Your task to perform on an android device: create a new album in the google photos Image 0: 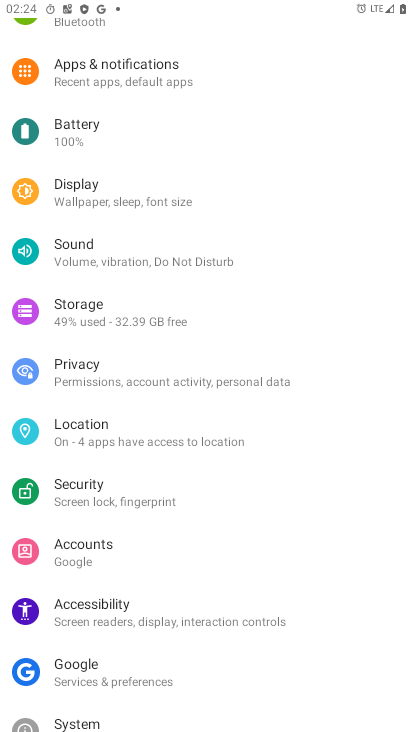
Step 0: press home button
Your task to perform on an android device: create a new album in the google photos Image 1: 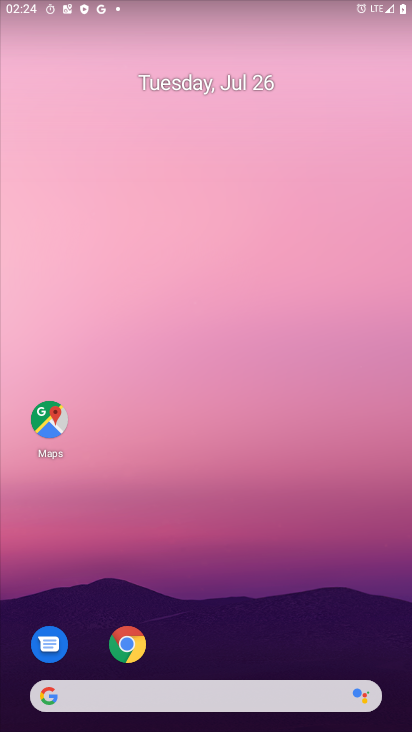
Step 1: drag from (235, 620) to (209, 74)
Your task to perform on an android device: create a new album in the google photos Image 2: 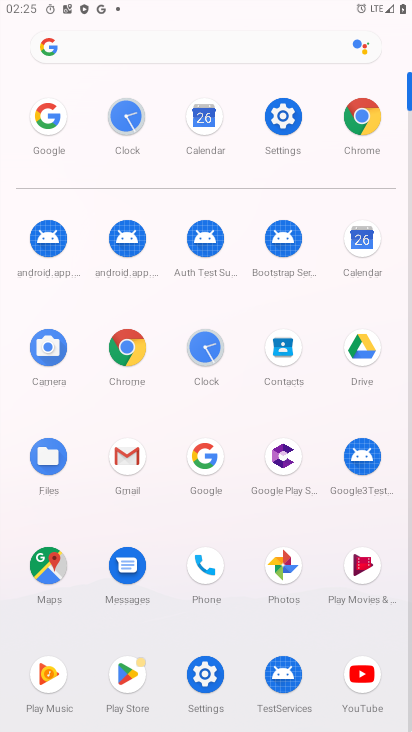
Step 2: click (281, 568)
Your task to perform on an android device: create a new album in the google photos Image 3: 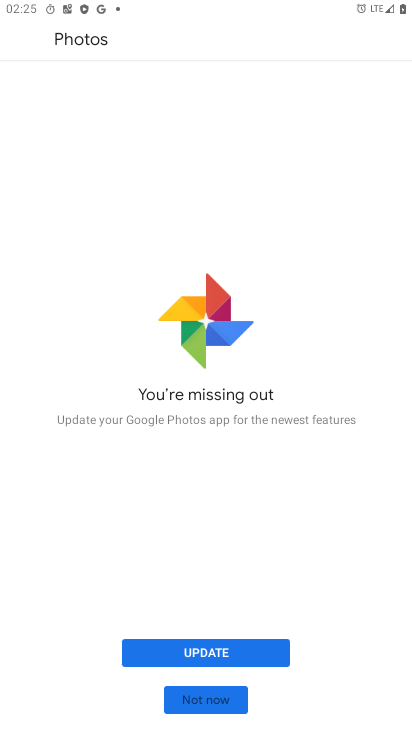
Step 3: click (196, 697)
Your task to perform on an android device: create a new album in the google photos Image 4: 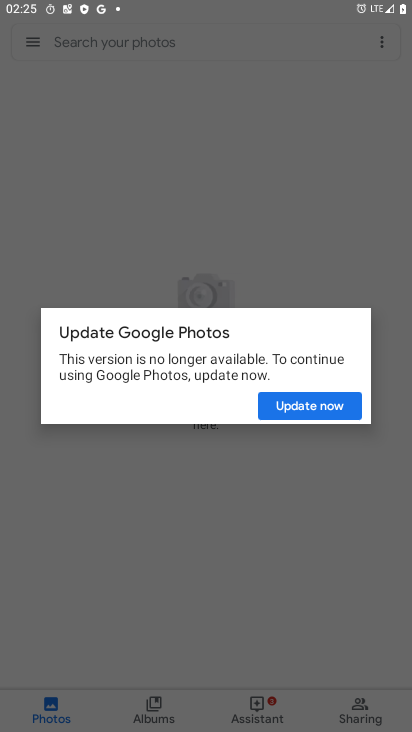
Step 4: click (314, 412)
Your task to perform on an android device: create a new album in the google photos Image 5: 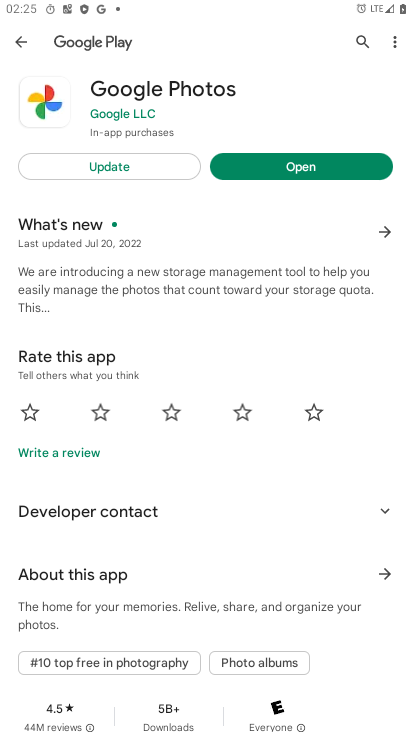
Step 5: click (272, 172)
Your task to perform on an android device: create a new album in the google photos Image 6: 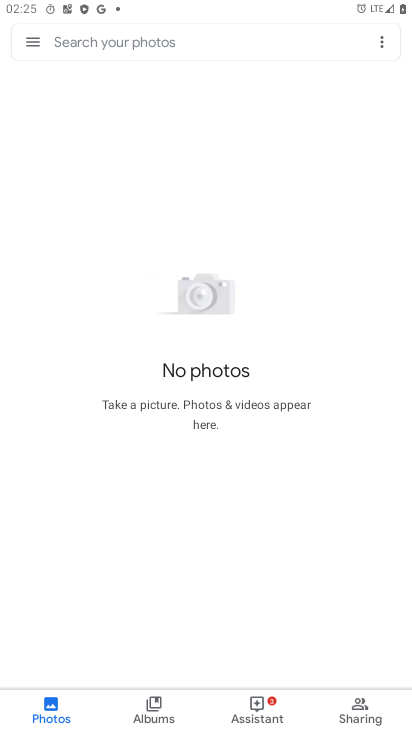
Step 6: click (38, 710)
Your task to perform on an android device: create a new album in the google photos Image 7: 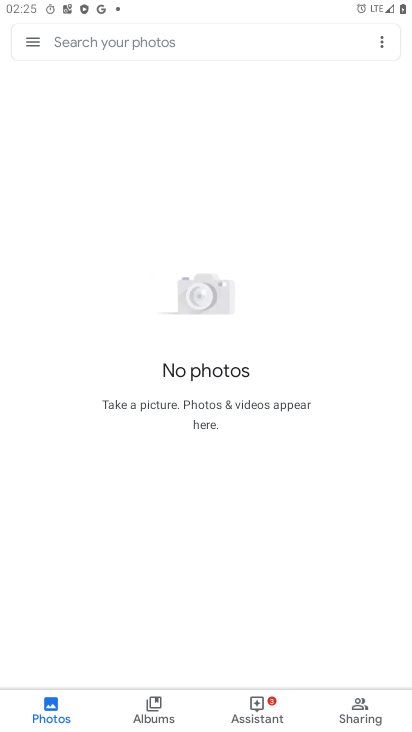
Step 7: task complete